Your task to perform on an android device: change keyboard looks Image 0: 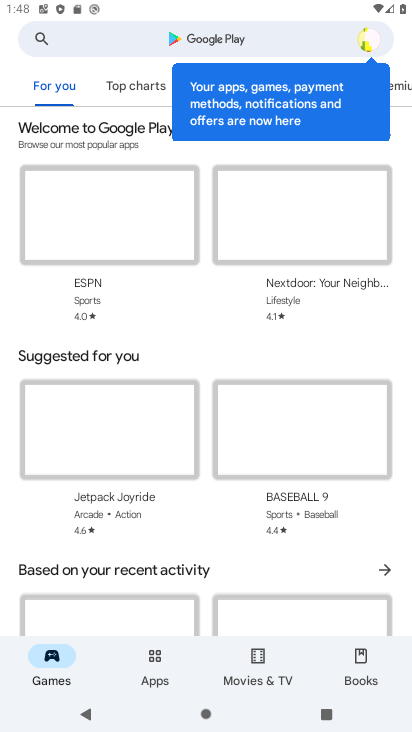
Step 0: press home button
Your task to perform on an android device: change keyboard looks Image 1: 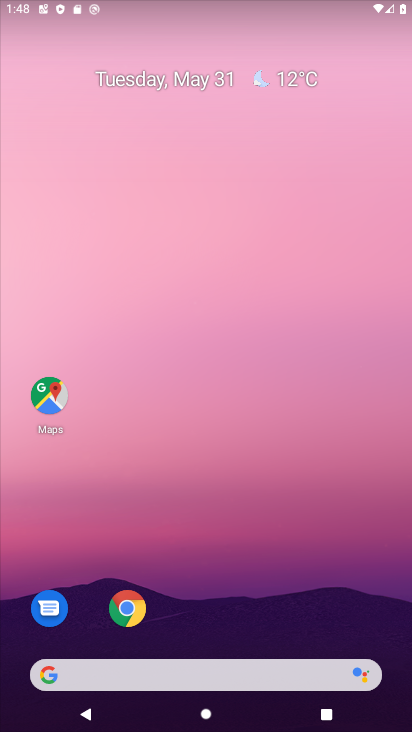
Step 1: drag from (298, 593) to (277, 188)
Your task to perform on an android device: change keyboard looks Image 2: 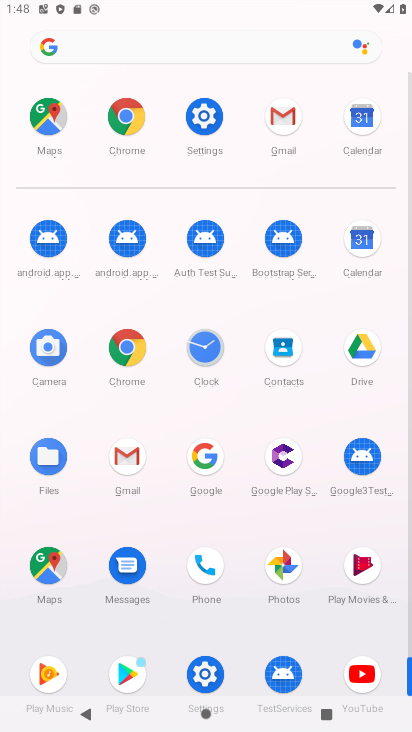
Step 2: click (205, 670)
Your task to perform on an android device: change keyboard looks Image 3: 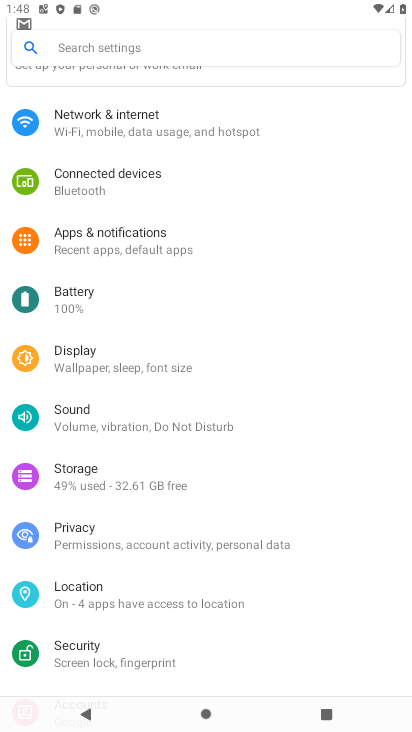
Step 3: drag from (223, 629) to (302, 248)
Your task to perform on an android device: change keyboard looks Image 4: 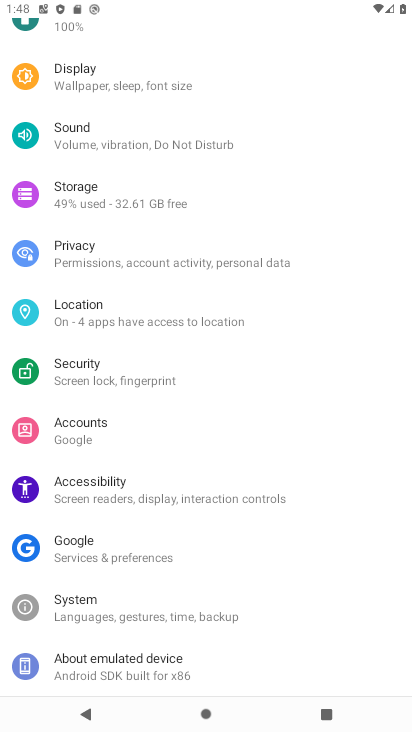
Step 4: click (174, 605)
Your task to perform on an android device: change keyboard looks Image 5: 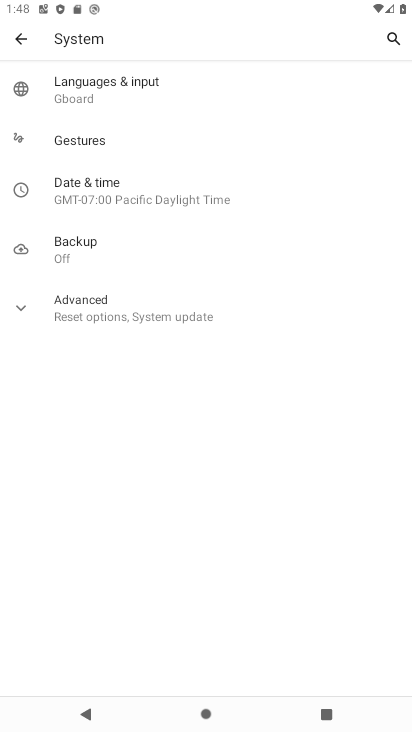
Step 5: click (152, 87)
Your task to perform on an android device: change keyboard looks Image 6: 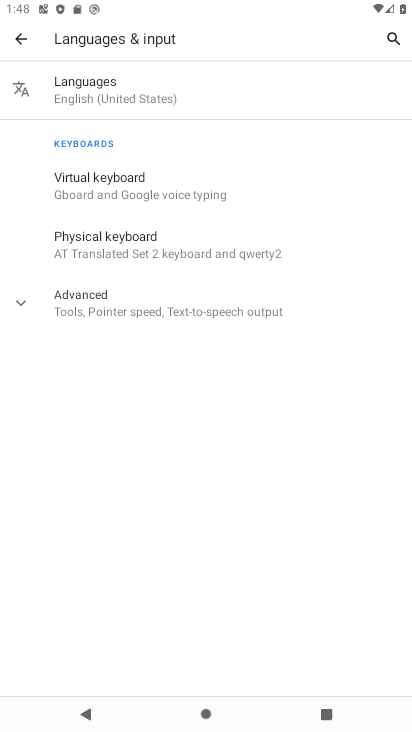
Step 6: click (175, 184)
Your task to perform on an android device: change keyboard looks Image 7: 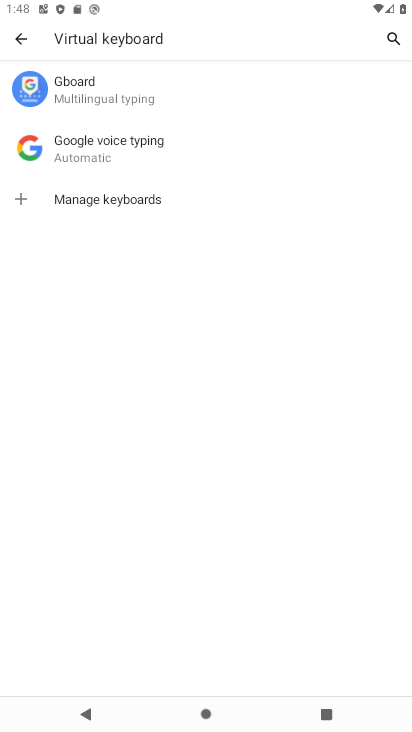
Step 7: click (176, 79)
Your task to perform on an android device: change keyboard looks Image 8: 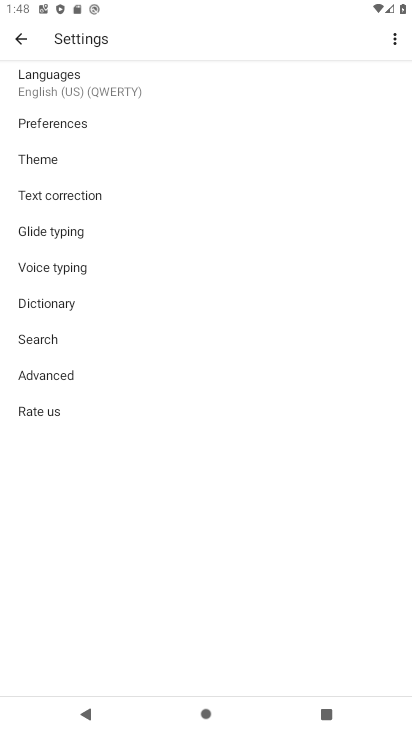
Step 8: click (99, 150)
Your task to perform on an android device: change keyboard looks Image 9: 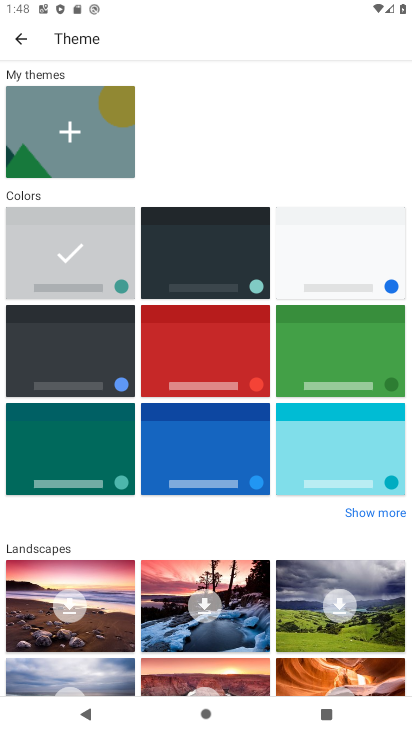
Step 9: click (213, 360)
Your task to perform on an android device: change keyboard looks Image 10: 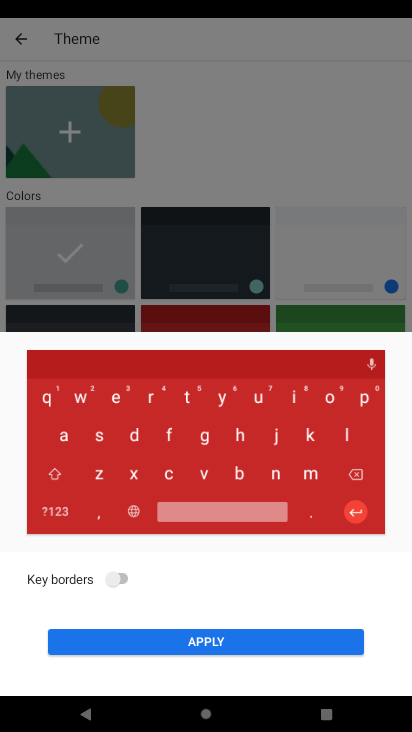
Step 10: click (239, 646)
Your task to perform on an android device: change keyboard looks Image 11: 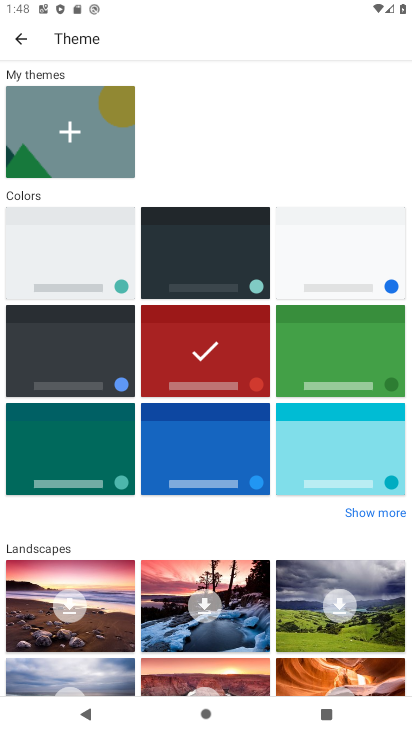
Step 11: task complete